Your task to perform on an android device: change the clock display to analog Image 0: 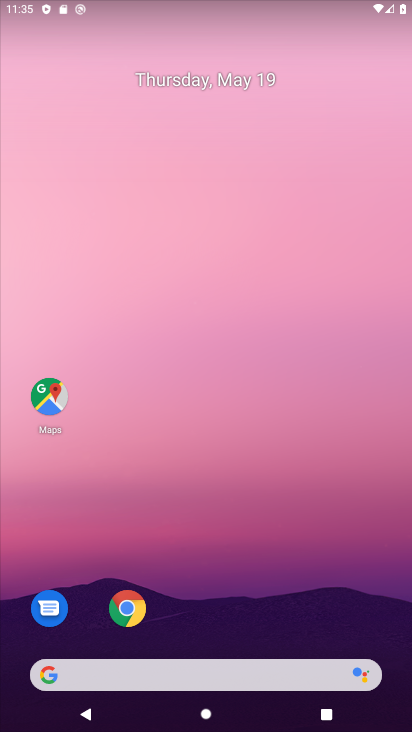
Step 0: drag from (388, 635) to (376, 151)
Your task to perform on an android device: change the clock display to analog Image 1: 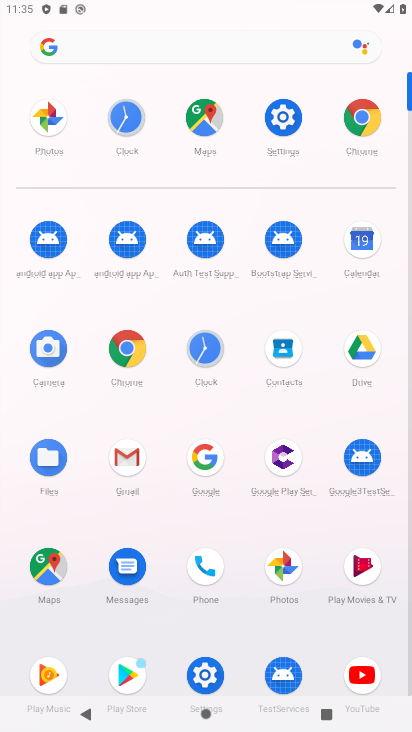
Step 1: click (211, 352)
Your task to perform on an android device: change the clock display to analog Image 2: 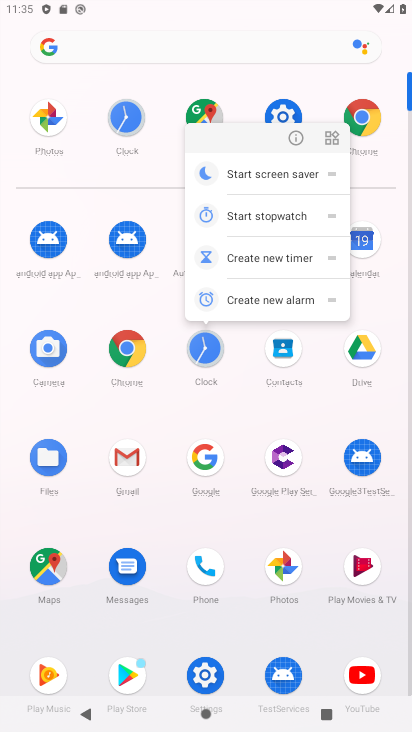
Step 2: click (208, 364)
Your task to perform on an android device: change the clock display to analog Image 3: 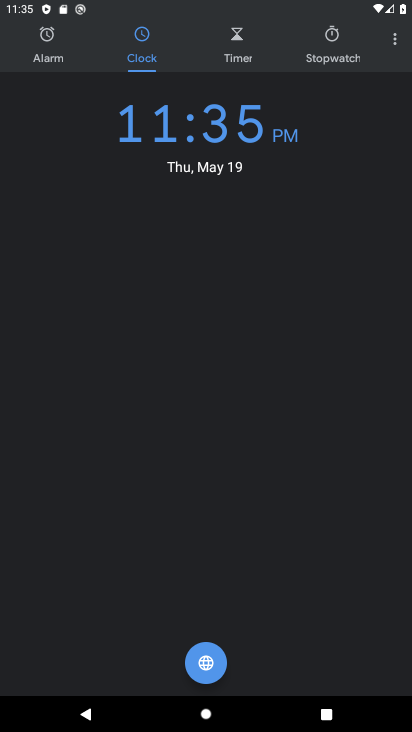
Step 3: click (393, 44)
Your task to perform on an android device: change the clock display to analog Image 4: 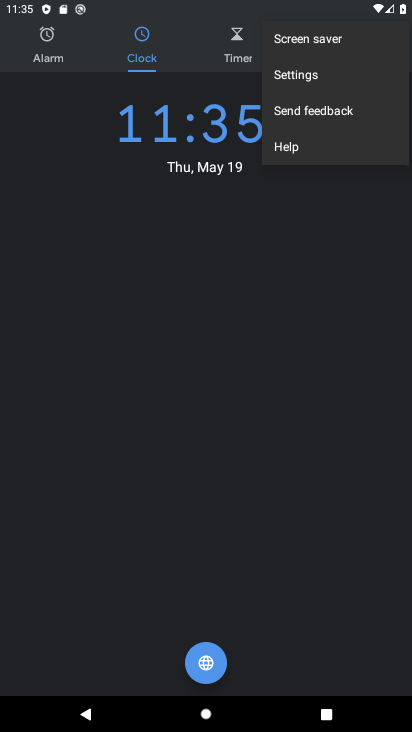
Step 4: click (316, 81)
Your task to perform on an android device: change the clock display to analog Image 5: 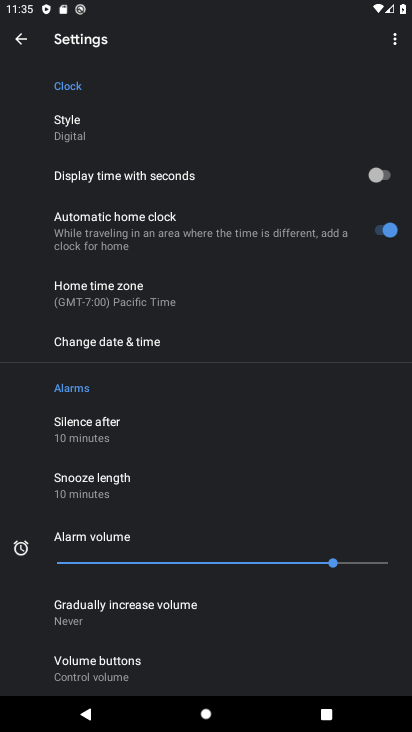
Step 5: click (110, 139)
Your task to perform on an android device: change the clock display to analog Image 6: 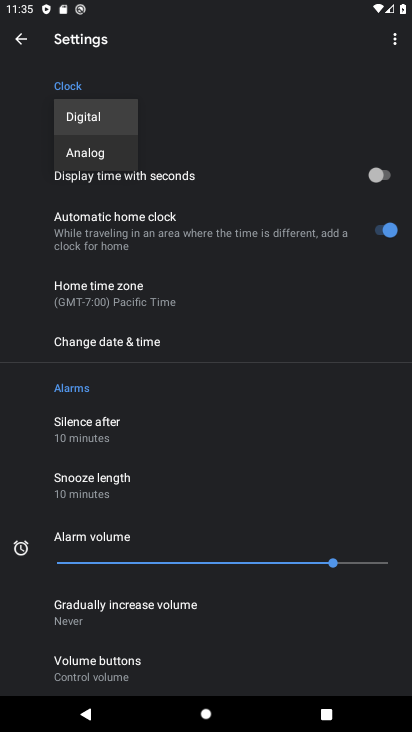
Step 6: click (106, 165)
Your task to perform on an android device: change the clock display to analog Image 7: 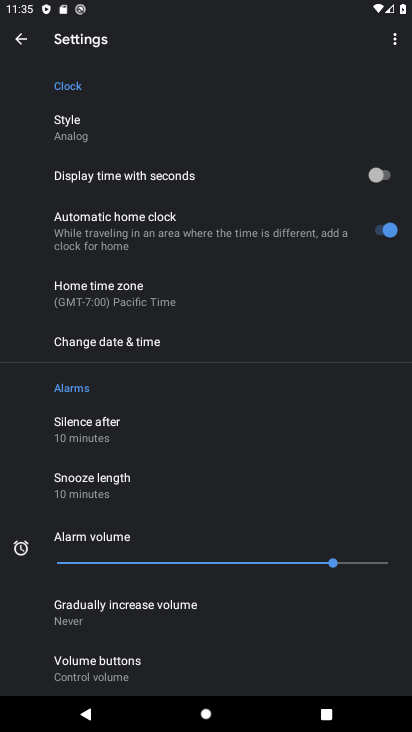
Step 7: task complete